Your task to perform on an android device: search for starred emails in the gmail app Image 0: 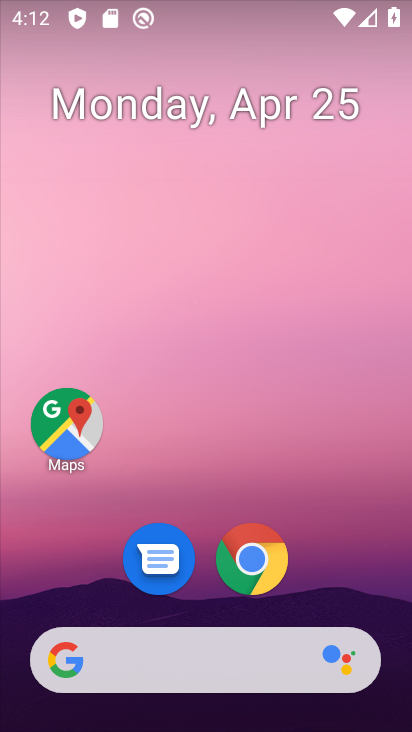
Step 0: drag from (193, 470) to (201, 22)
Your task to perform on an android device: search for starred emails in the gmail app Image 1: 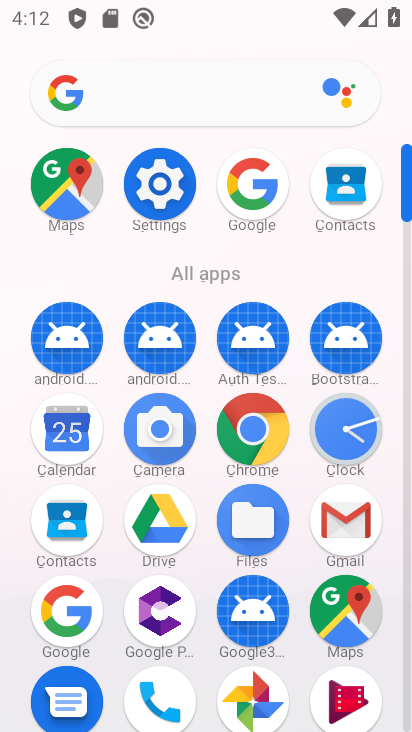
Step 1: click (347, 519)
Your task to perform on an android device: search for starred emails in the gmail app Image 2: 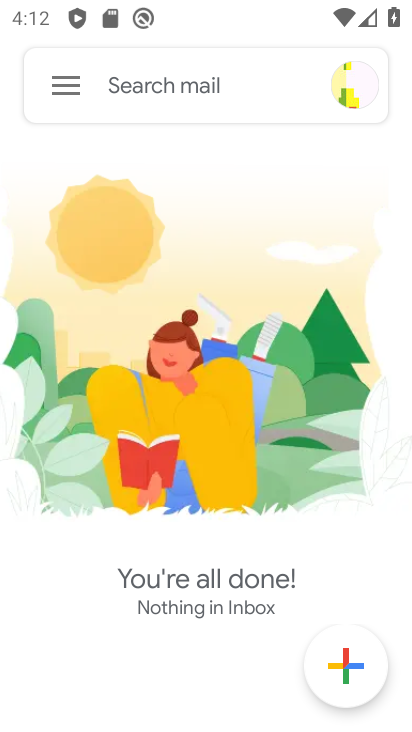
Step 2: click (74, 90)
Your task to perform on an android device: search for starred emails in the gmail app Image 3: 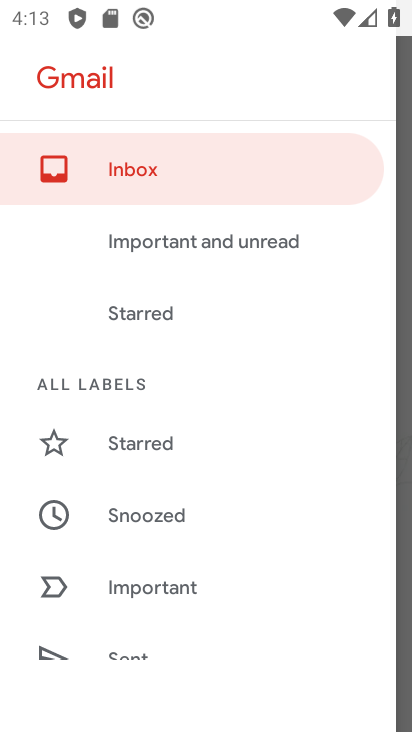
Step 3: click (149, 445)
Your task to perform on an android device: search for starred emails in the gmail app Image 4: 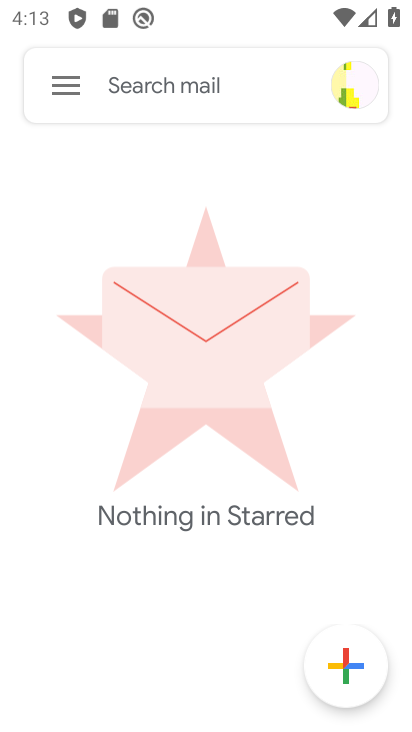
Step 4: click (80, 89)
Your task to perform on an android device: search for starred emails in the gmail app Image 5: 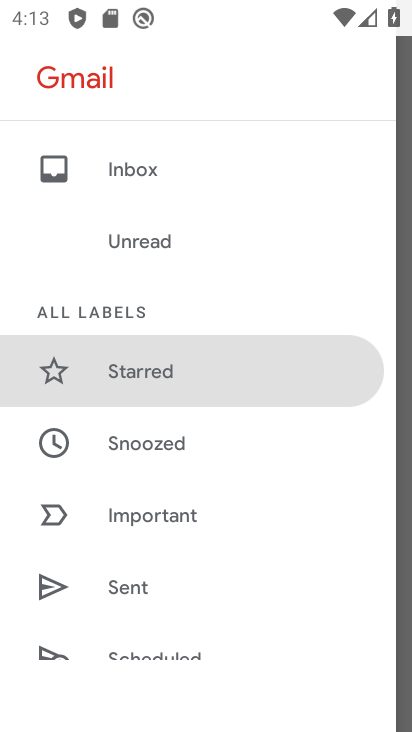
Step 5: task complete